Your task to perform on an android device: uninstall "Upside-Cash back on gas & food" Image 0: 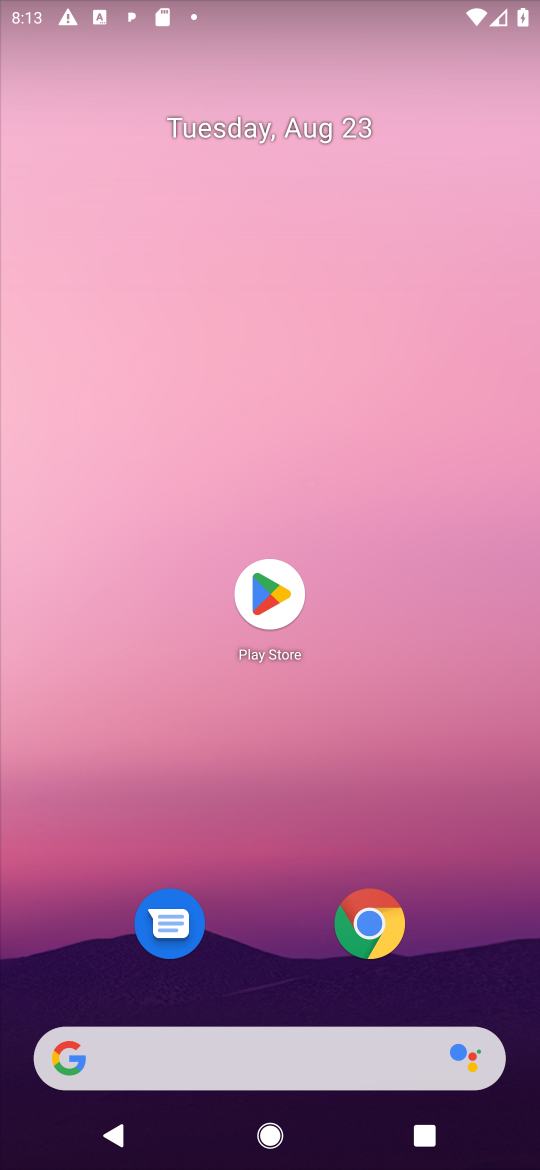
Step 0: click (269, 591)
Your task to perform on an android device: uninstall "Upside-Cash back on gas & food" Image 1: 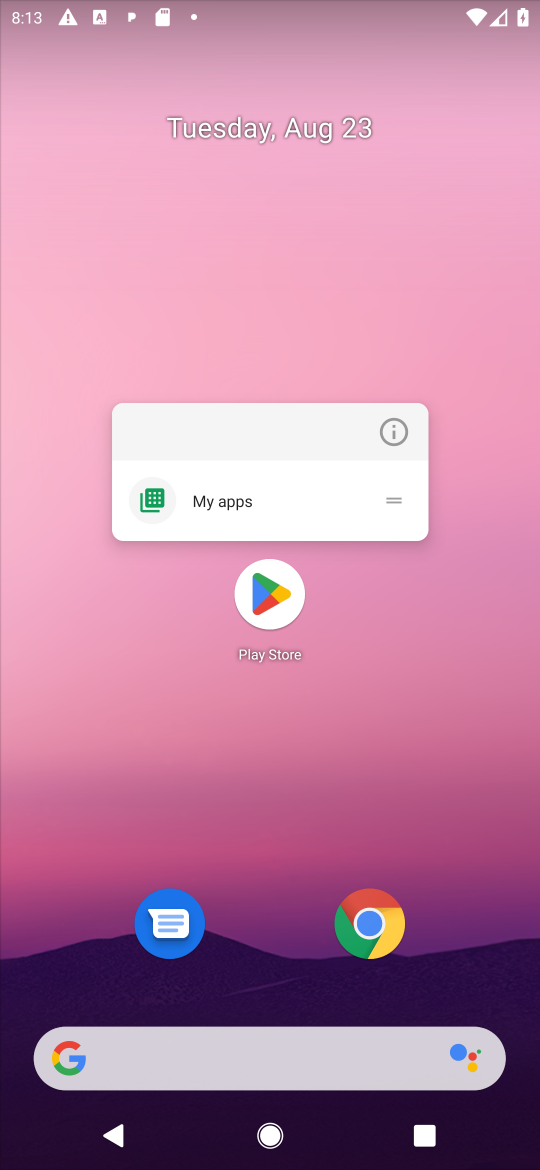
Step 1: click (269, 591)
Your task to perform on an android device: uninstall "Upside-Cash back on gas & food" Image 2: 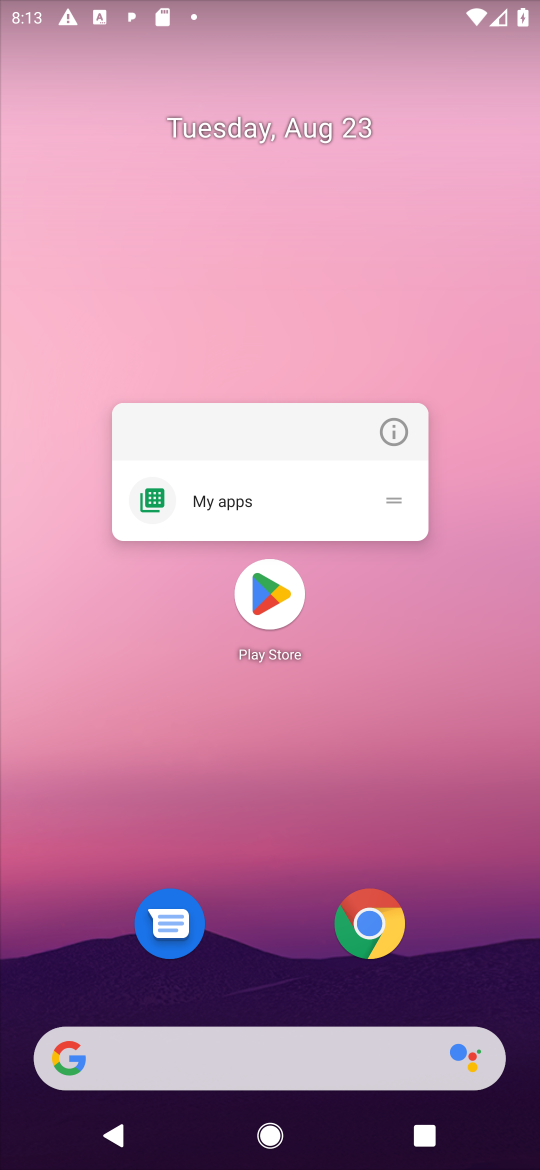
Step 2: click (249, 603)
Your task to perform on an android device: uninstall "Upside-Cash back on gas & food" Image 3: 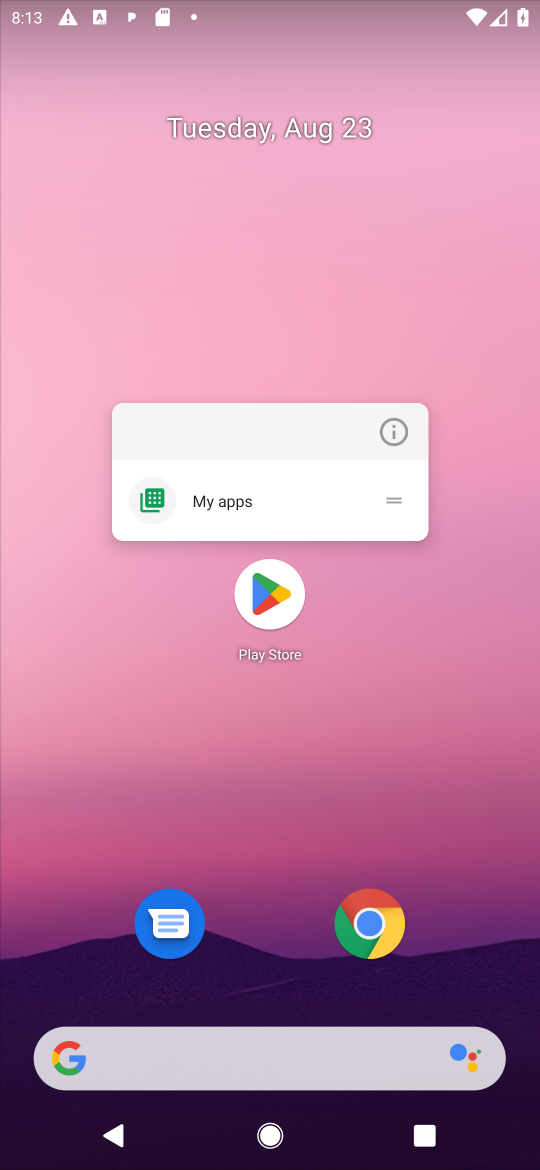
Step 3: click (266, 597)
Your task to perform on an android device: uninstall "Upside-Cash back on gas & food" Image 4: 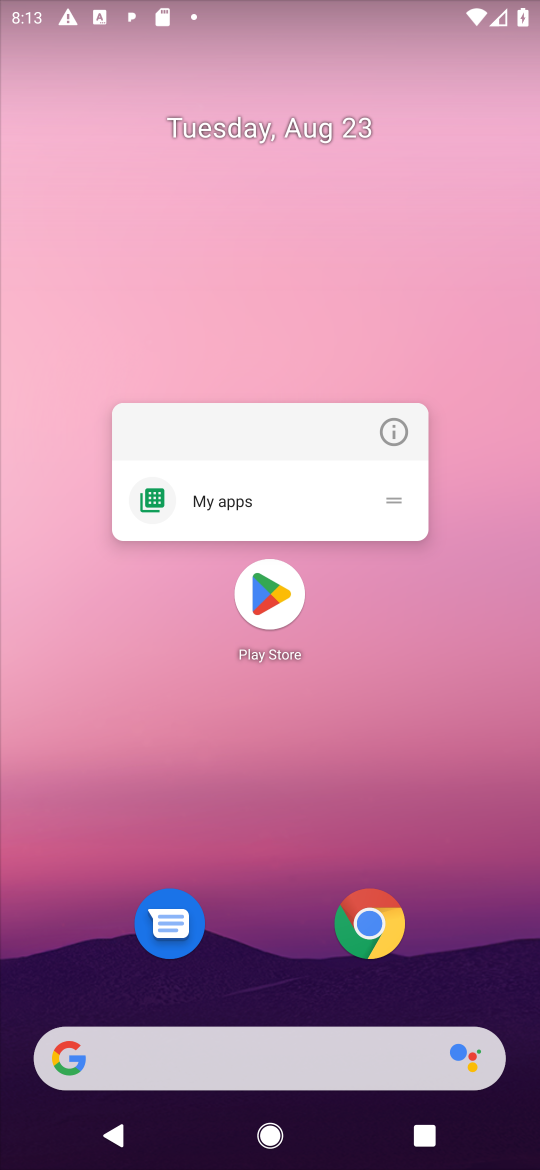
Step 4: click (265, 597)
Your task to perform on an android device: uninstall "Upside-Cash back on gas & food" Image 5: 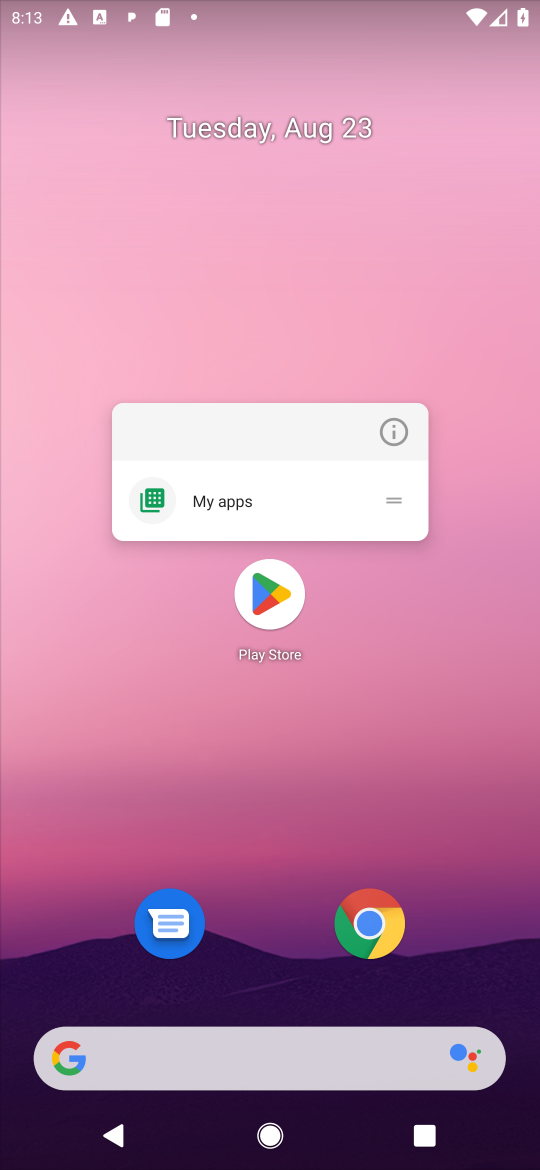
Step 5: click (265, 604)
Your task to perform on an android device: uninstall "Upside-Cash back on gas & food" Image 6: 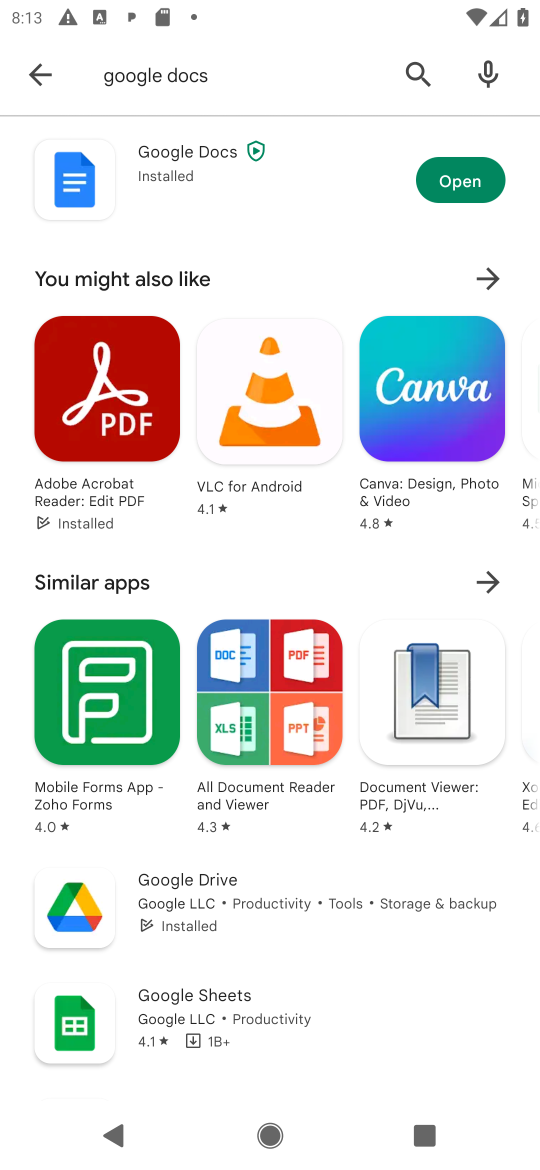
Step 6: click (413, 69)
Your task to perform on an android device: uninstall "Upside-Cash back on gas & food" Image 7: 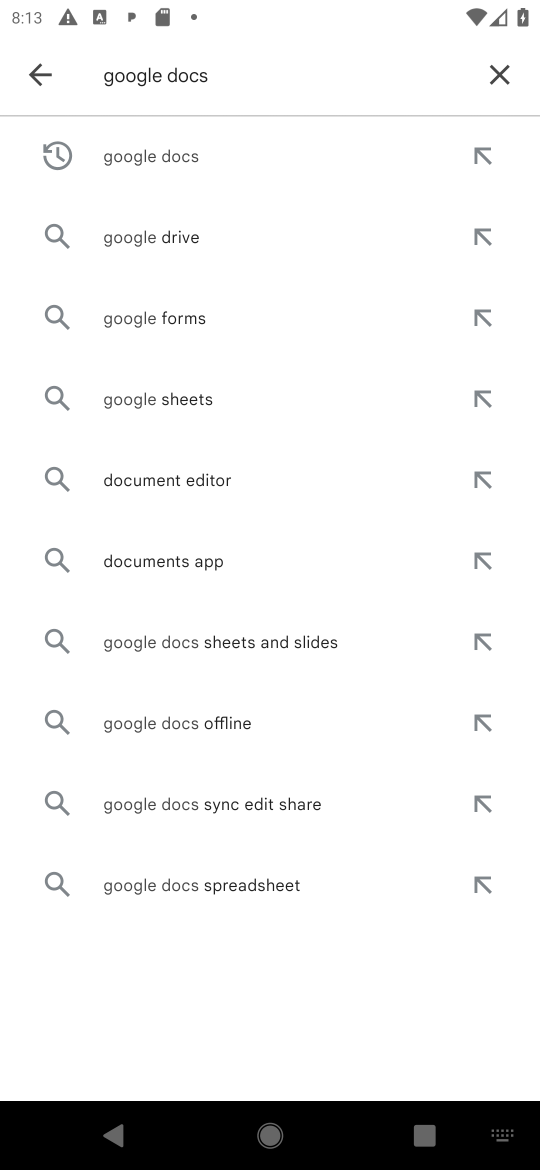
Step 7: click (495, 73)
Your task to perform on an android device: uninstall "Upside-Cash back on gas & food" Image 8: 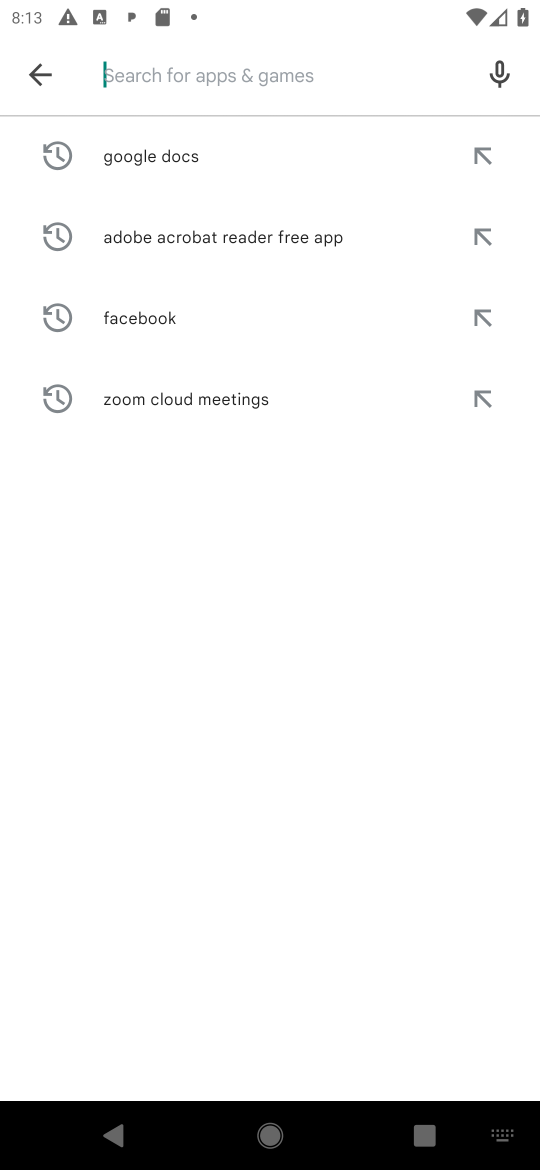
Step 8: type "Upside-Cash back on gas & food"
Your task to perform on an android device: uninstall "Upside-Cash back on gas & food" Image 9: 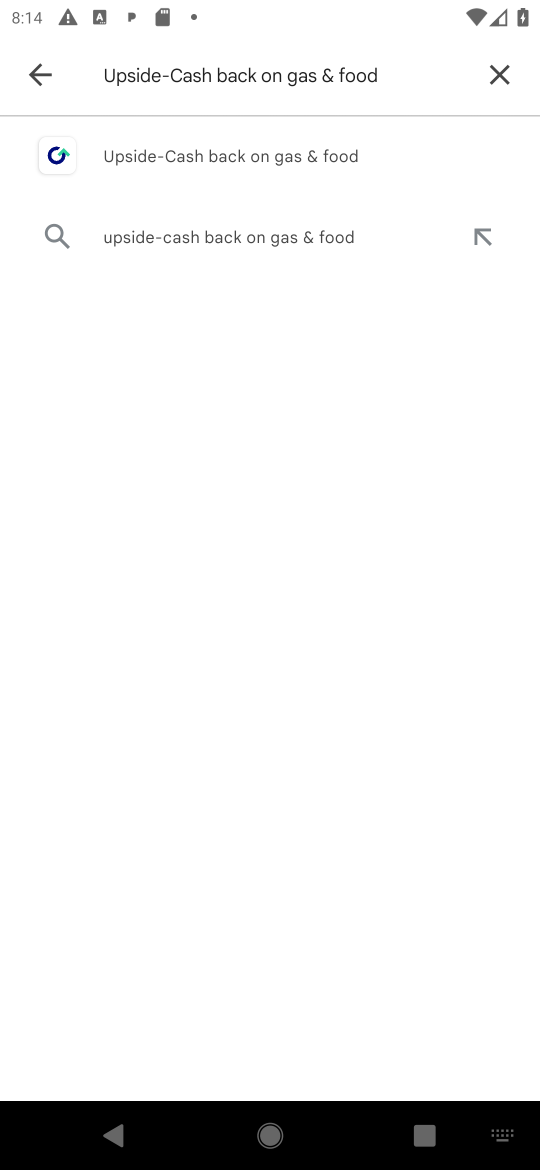
Step 9: click (170, 150)
Your task to perform on an android device: uninstall "Upside-Cash back on gas & food" Image 10: 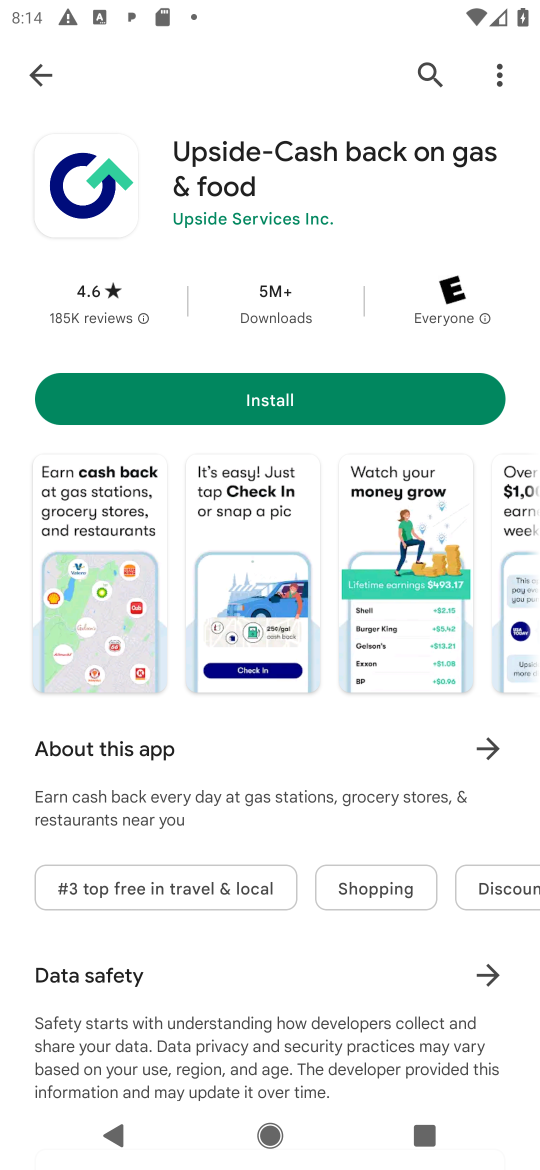
Step 10: task complete